Your task to perform on an android device: Go to sound settings Image 0: 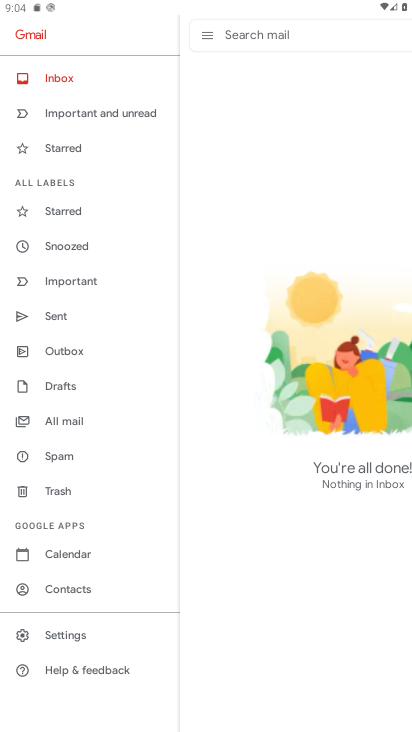
Step 0: press home button
Your task to perform on an android device: Go to sound settings Image 1: 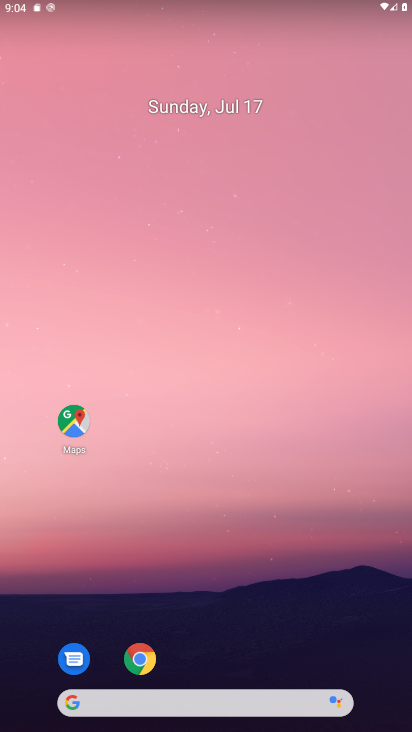
Step 1: drag from (216, 695) to (225, 162)
Your task to perform on an android device: Go to sound settings Image 2: 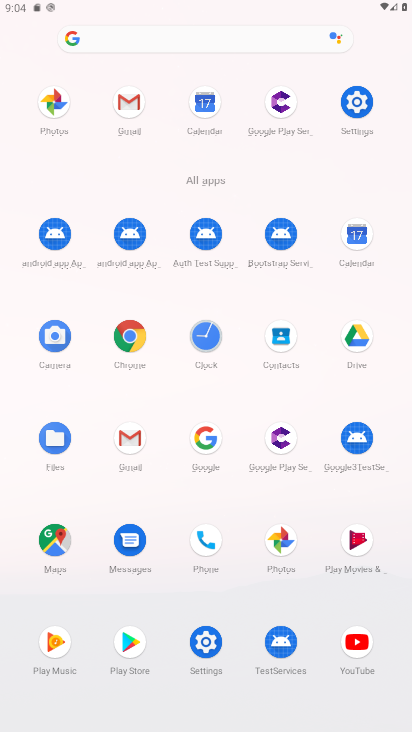
Step 2: click (355, 115)
Your task to perform on an android device: Go to sound settings Image 3: 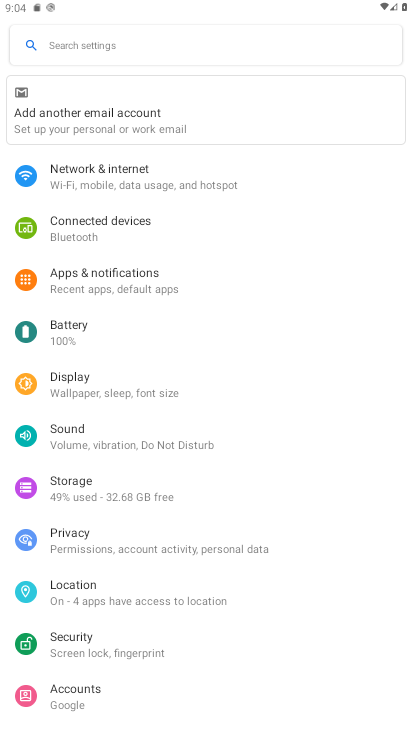
Step 3: click (91, 441)
Your task to perform on an android device: Go to sound settings Image 4: 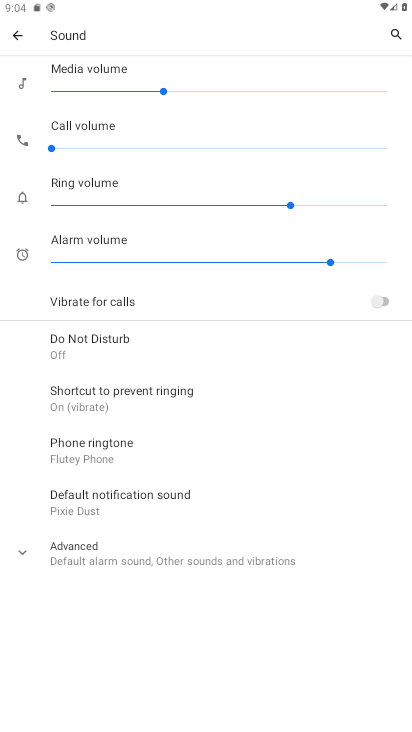
Step 4: task complete